Your task to perform on an android device: Play the last video I watched on Youtube Image 0: 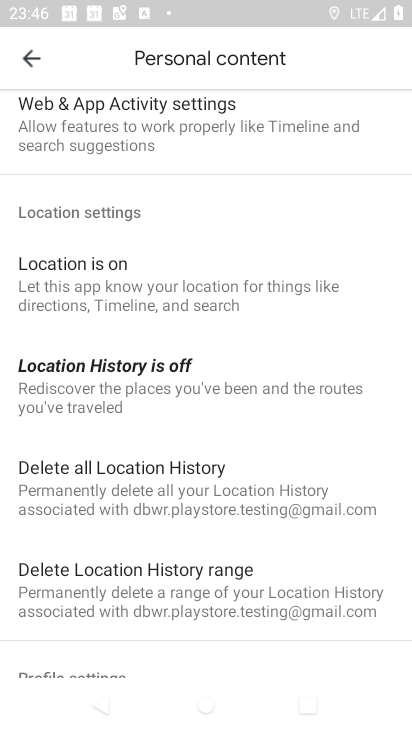
Step 0: press home button
Your task to perform on an android device: Play the last video I watched on Youtube Image 1: 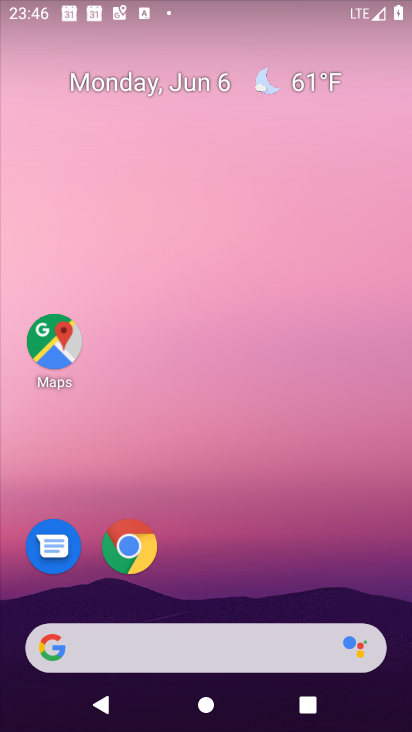
Step 1: drag from (403, 616) to (318, 34)
Your task to perform on an android device: Play the last video I watched on Youtube Image 2: 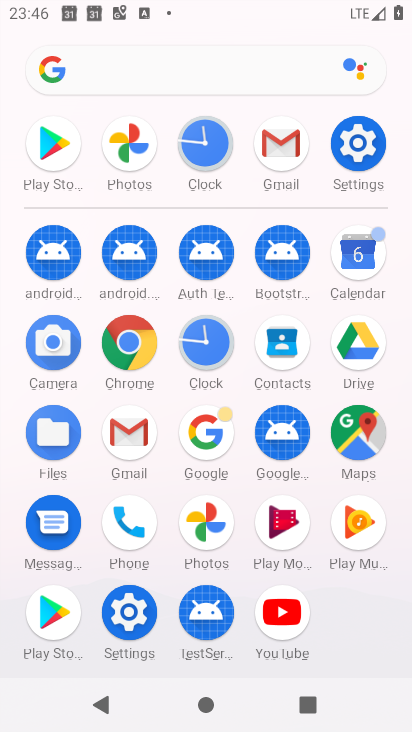
Step 2: click (278, 617)
Your task to perform on an android device: Play the last video I watched on Youtube Image 3: 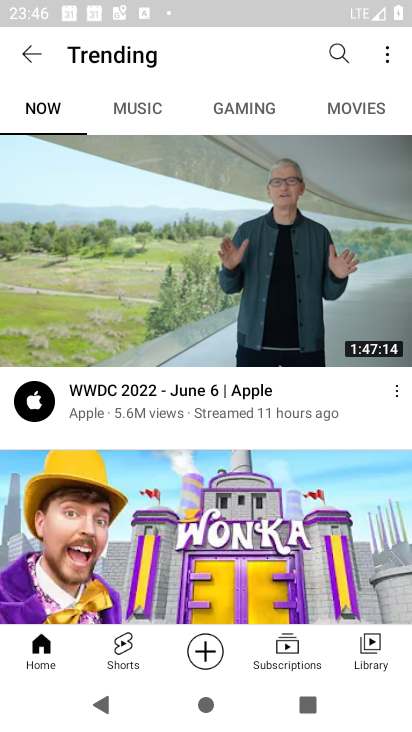
Step 3: click (373, 656)
Your task to perform on an android device: Play the last video I watched on Youtube Image 4: 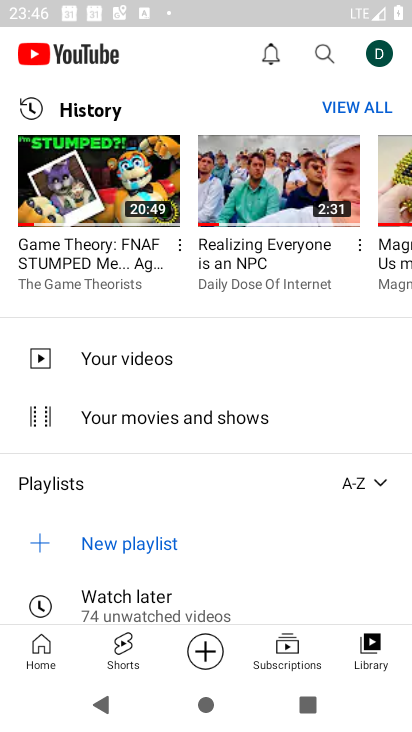
Step 4: click (94, 184)
Your task to perform on an android device: Play the last video I watched on Youtube Image 5: 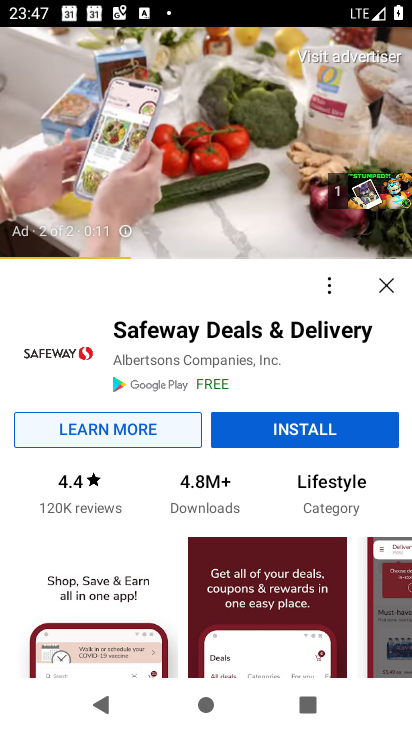
Step 5: click (385, 280)
Your task to perform on an android device: Play the last video I watched on Youtube Image 6: 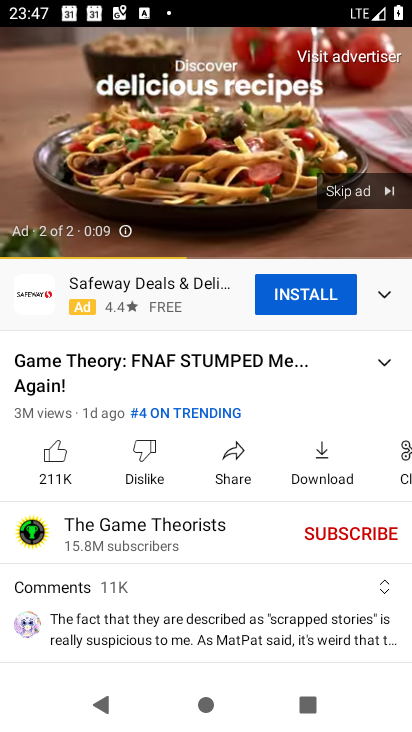
Step 6: click (357, 182)
Your task to perform on an android device: Play the last video I watched on Youtube Image 7: 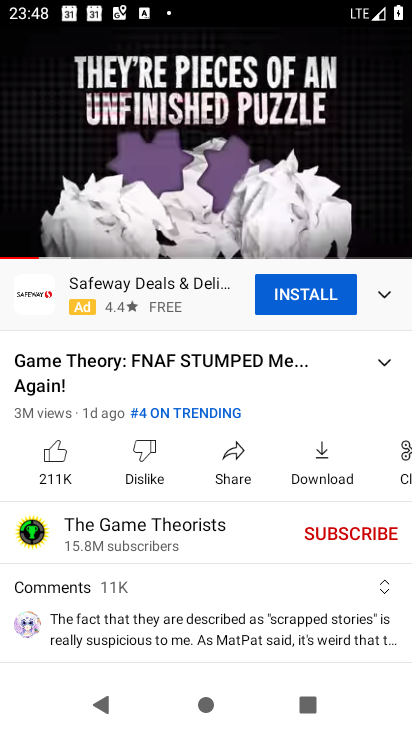
Step 7: click (221, 143)
Your task to perform on an android device: Play the last video I watched on Youtube Image 8: 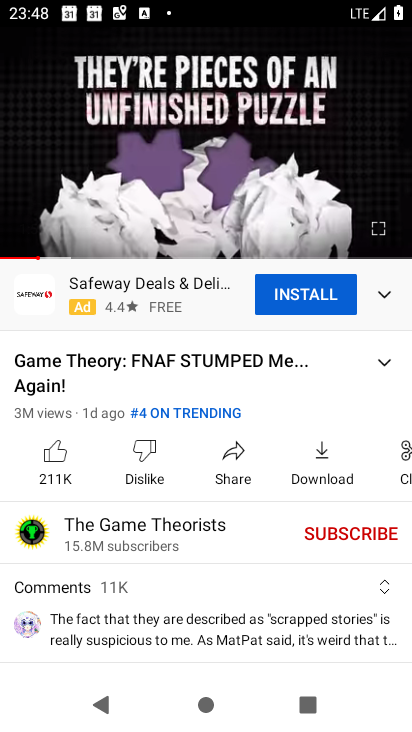
Step 8: click (221, 143)
Your task to perform on an android device: Play the last video I watched on Youtube Image 9: 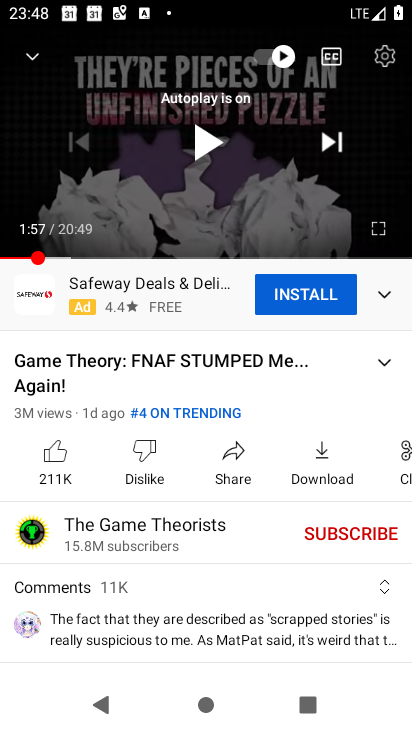
Step 9: task complete